Your task to perform on an android device: Go to display settings Image 0: 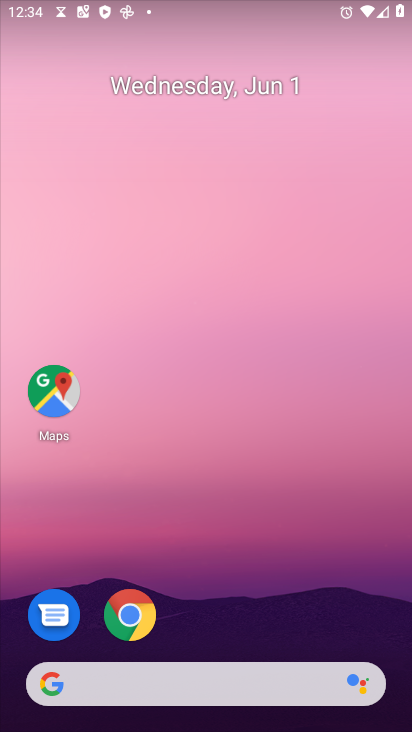
Step 0: drag from (232, 492) to (258, 104)
Your task to perform on an android device: Go to display settings Image 1: 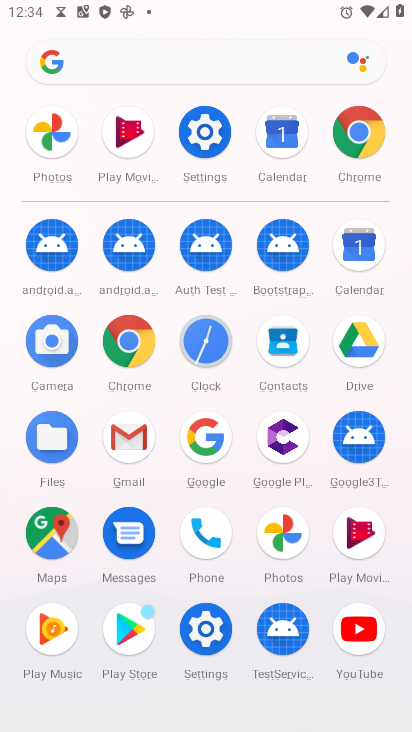
Step 1: click (229, 130)
Your task to perform on an android device: Go to display settings Image 2: 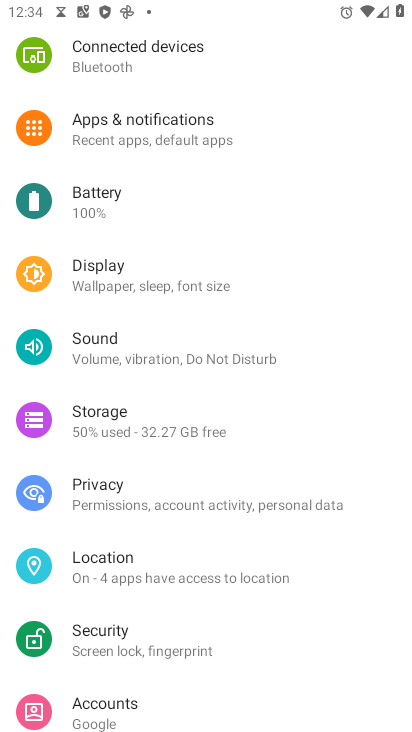
Step 2: click (135, 277)
Your task to perform on an android device: Go to display settings Image 3: 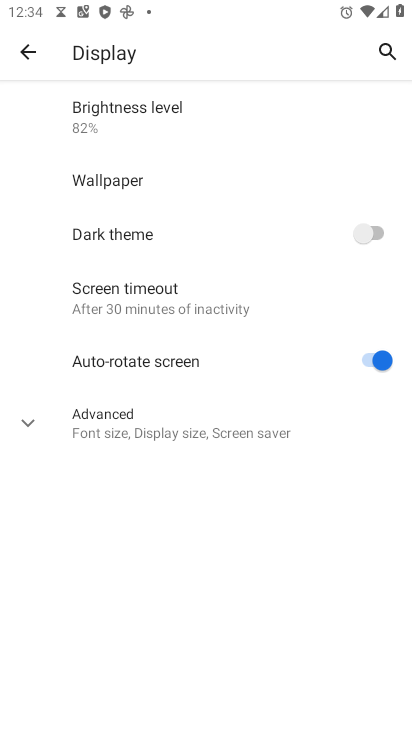
Step 3: task complete